Your task to perform on an android device: toggle priority inbox in the gmail app Image 0: 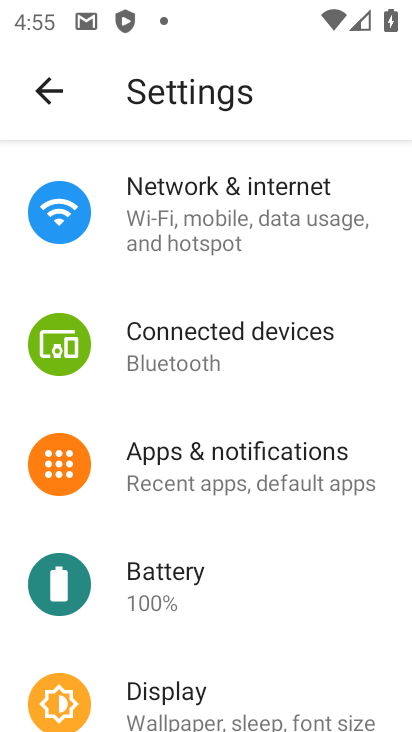
Step 0: press home button
Your task to perform on an android device: toggle priority inbox in the gmail app Image 1: 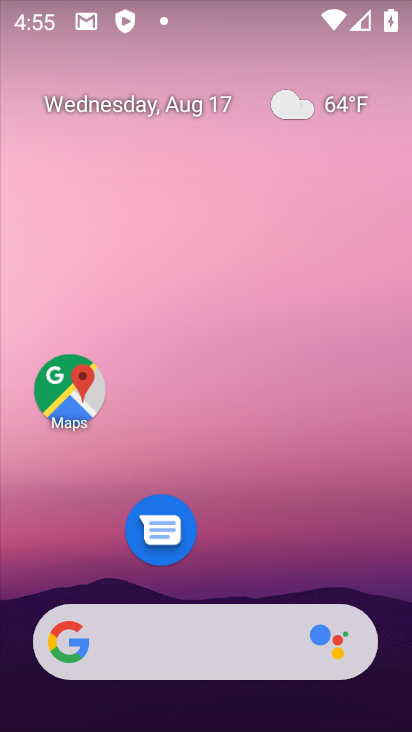
Step 1: drag from (206, 549) to (202, 160)
Your task to perform on an android device: toggle priority inbox in the gmail app Image 2: 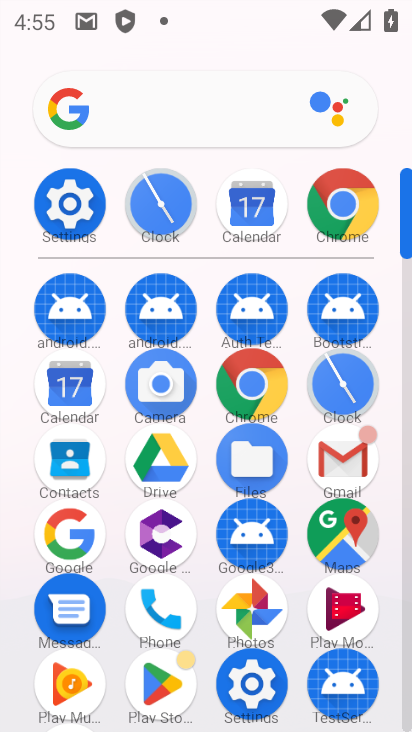
Step 2: click (336, 454)
Your task to perform on an android device: toggle priority inbox in the gmail app Image 3: 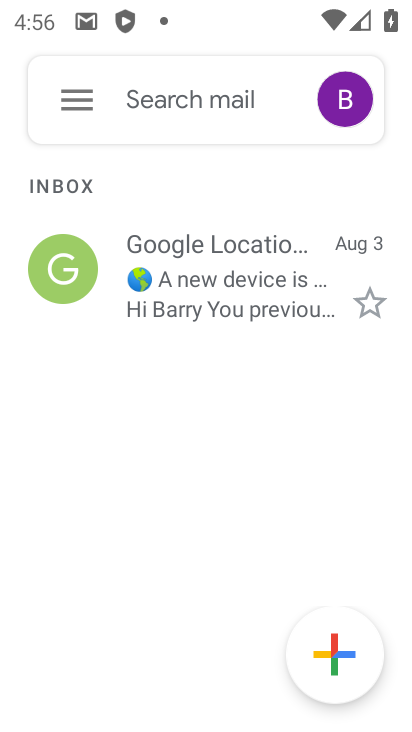
Step 3: click (74, 98)
Your task to perform on an android device: toggle priority inbox in the gmail app Image 4: 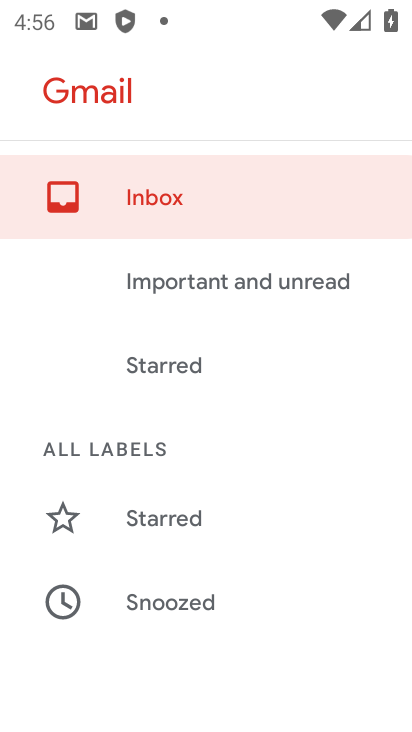
Step 4: drag from (198, 627) to (223, 235)
Your task to perform on an android device: toggle priority inbox in the gmail app Image 5: 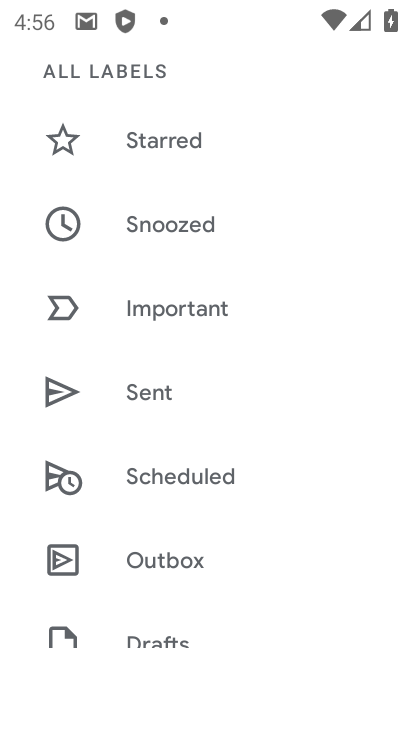
Step 5: drag from (211, 376) to (221, 326)
Your task to perform on an android device: toggle priority inbox in the gmail app Image 6: 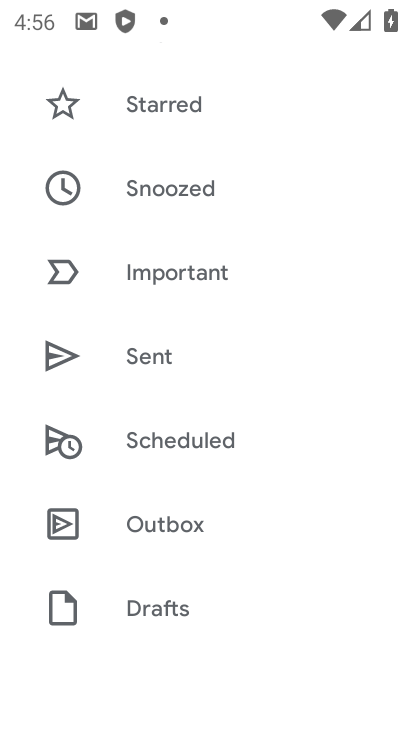
Step 6: drag from (171, 568) to (209, 130)
Your task to perform on an android device: toggle priority inbox in the gmail app Image 7: 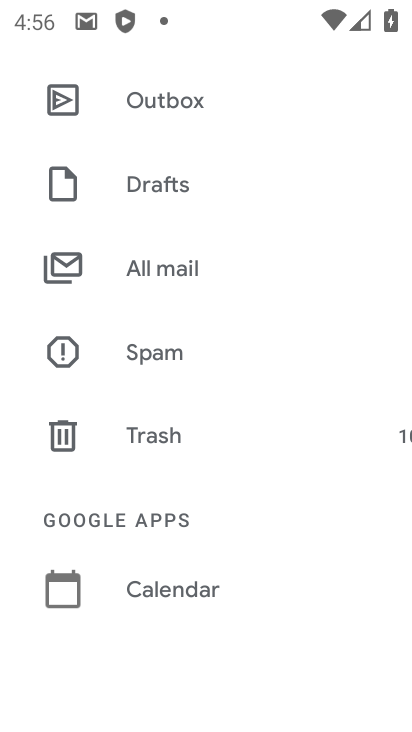
Step 7: drag from (252, 571) to (231, 114)
Your task to perform on an android device: toggle priority inbox in the gmail app Image 8: 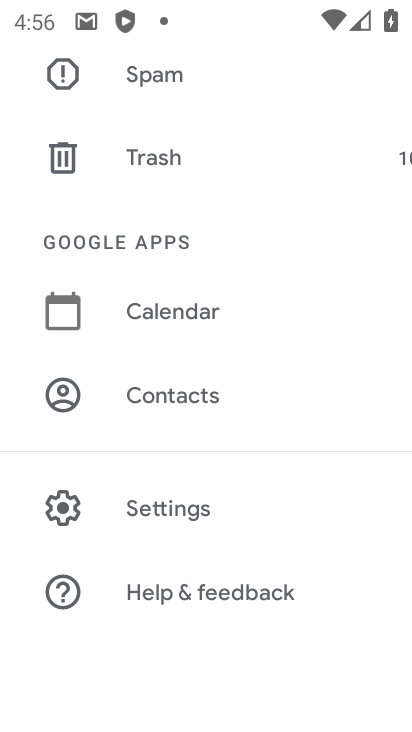
Step 8: click (156, 504)
Your task to perform on an android device: toggle priority inbox in the gmail app Image 9: 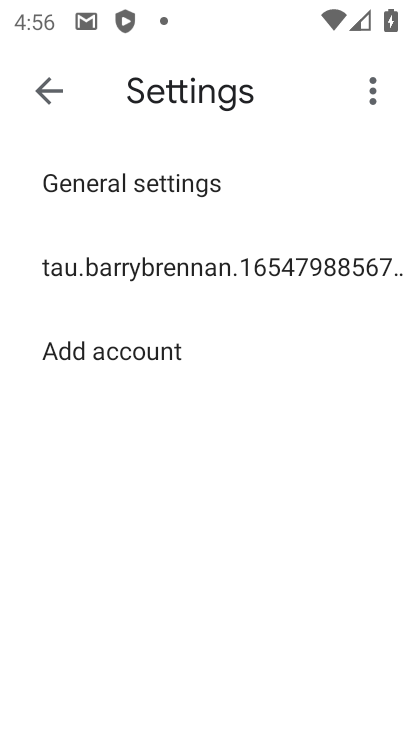
Step 9: click (146, 274)
Your task to perform on an android device: toggle priority inbox in the gmail app Image 10: 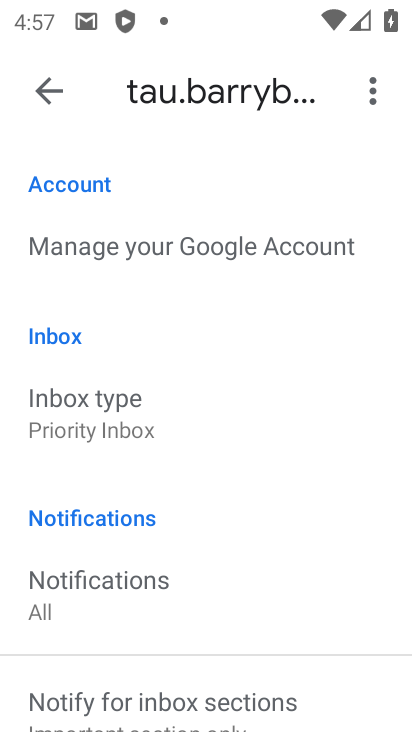
Step 10: task complete